Your task to perform on an android device: Go to Yahoo.com Image 0: 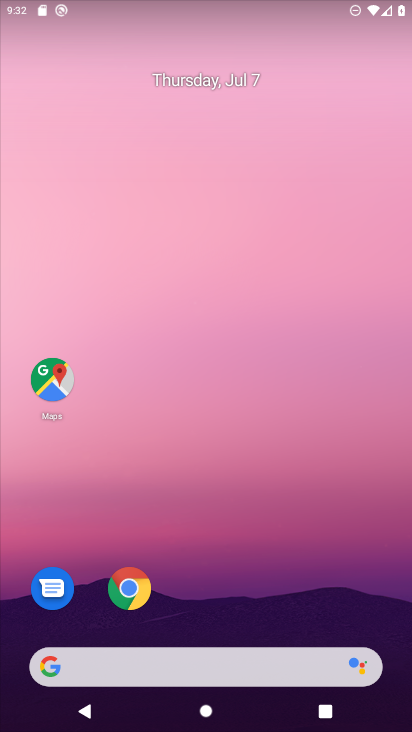
Step 0: click (180, 147)
Your task to perform on an android device: Go to Yahoo.com Image 1: 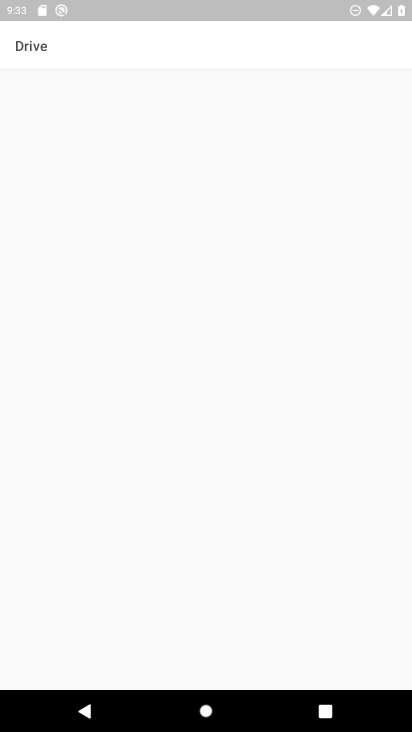
Step 1: press home button
Your task to perform on an android device: Go to Yahoo.com Image 2: 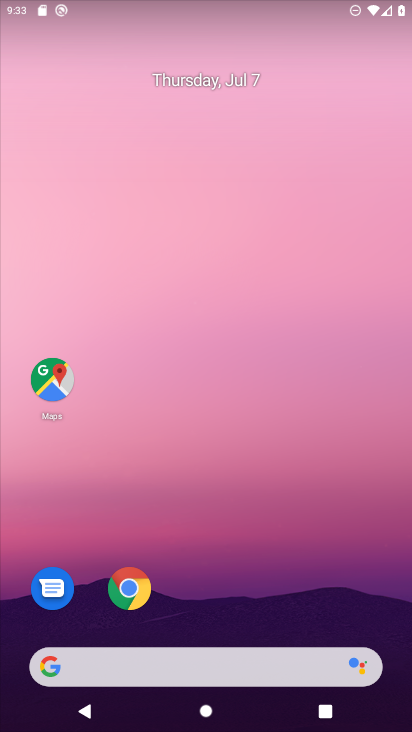
Step 2: click (125, 583)
Your task to perform on an android device: Go to Yahoo.com Image 3: 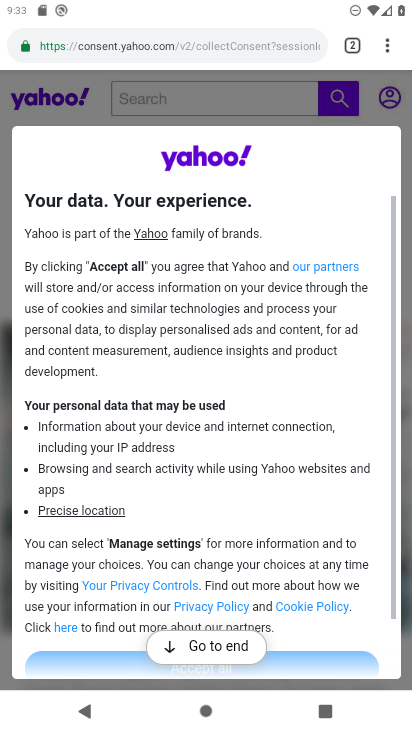
Step 3: task complete